Your task to perform on an android device: Toggle the flashlight Image 0: 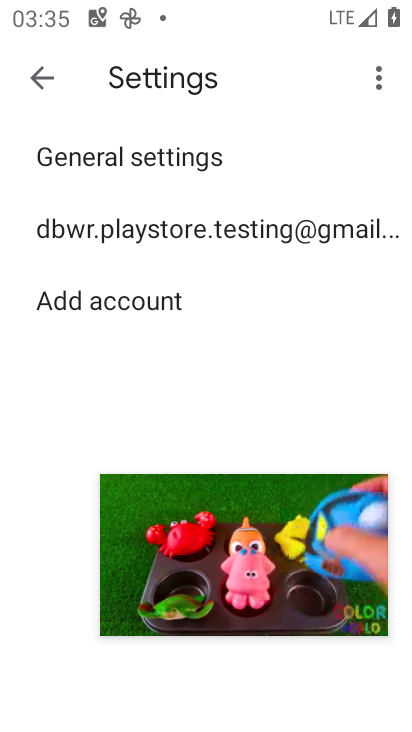
Step 0: click (37, 82)
Your task to perform on an android device: Toggle the flashlight Image 1: 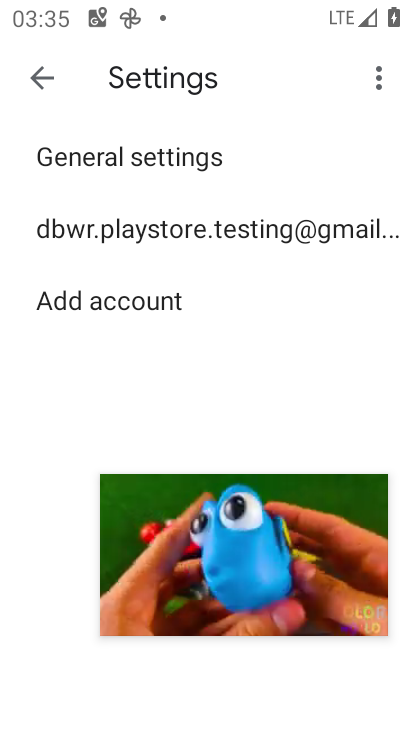
Step 1: click (37, 82)
Your task to perform on an android device: Toggle the flashlight Image 2: 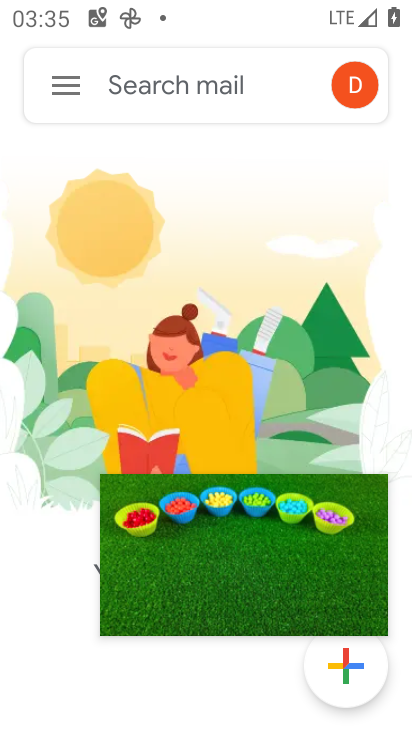
Step 2: click (60, 90)
Your task to perform on an android device: Toggle the flashlight Image 3: 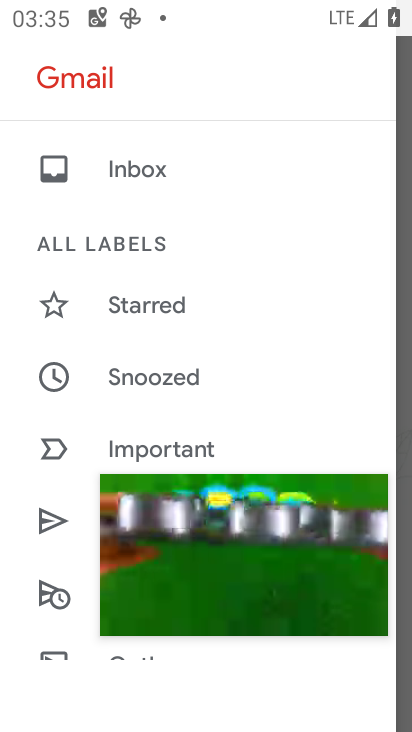
Step 3: task complete